Your task to perform on an android device: Open CNN.com Image 0: 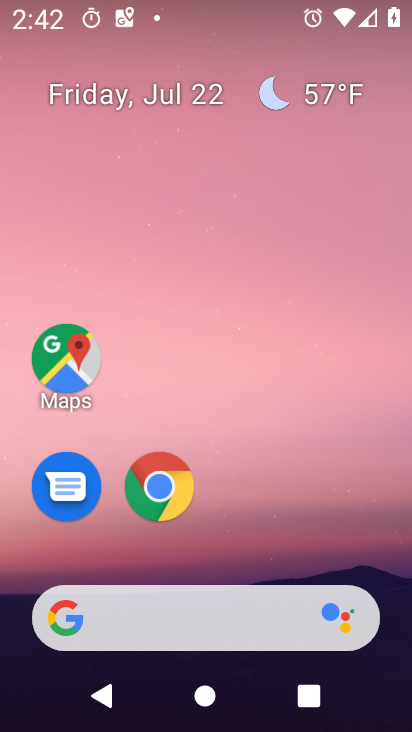
Step 0: press home button
Your task to perform on an android device: Open CNN.com Image 1: 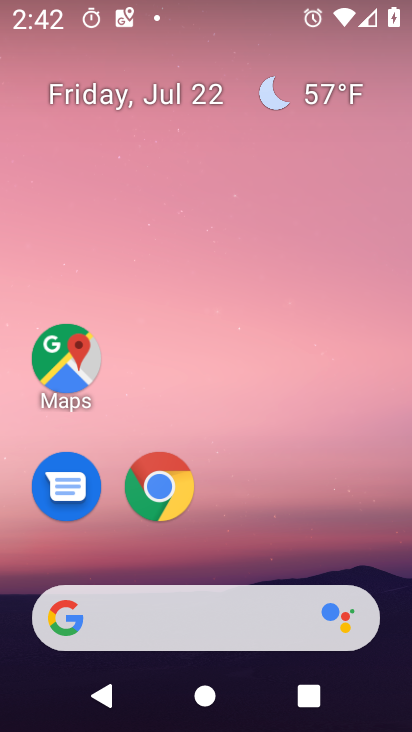
Step 1: drag from (344, 536) to (385, 227)
Your task to perform on an android device: Open CNN.com Image 2: 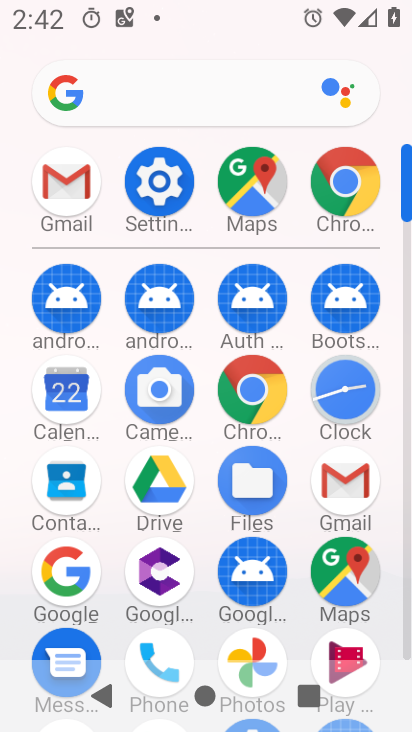
Step 2: click (258, 387)
Your task to perform on an android device: Open CNN.com Image 3: 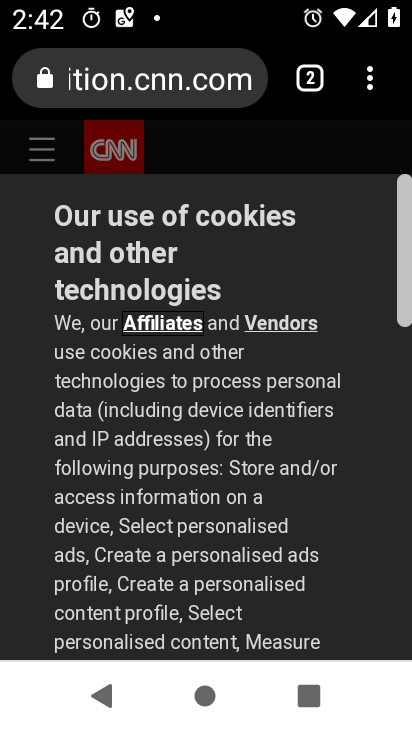
Step 3: click (183, 81)
Your task to perform on an android device: Open CNN.com Image 4: 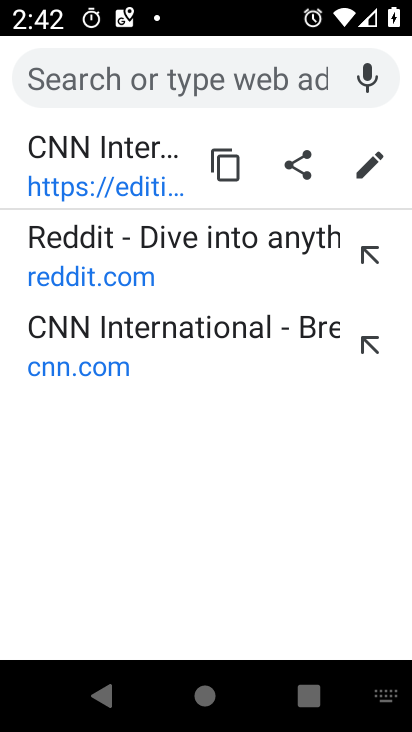
Step 4: type "cnn.com"
Your task to perform on an android device: Open CNN.com Image 5: 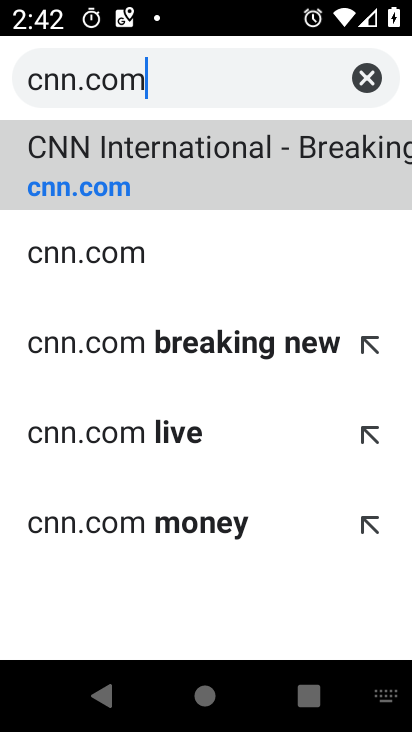
Step 5: click (296, 152)
Your task to perform on an android device: Open CNN.com Image 6: 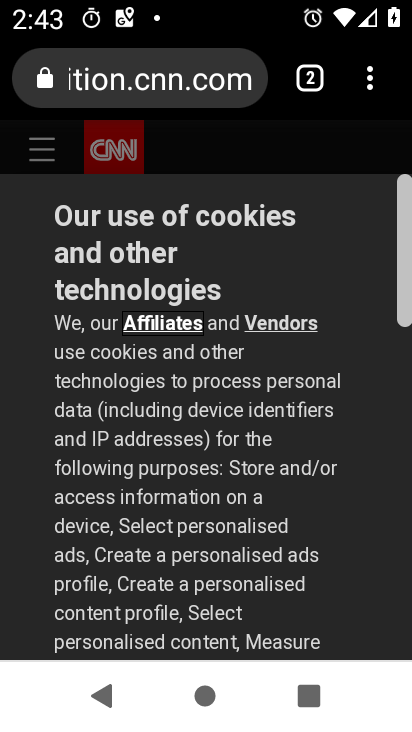
Step 6: task complete